Your task to perform on an android device: uninstall "Gboard" Image 0: 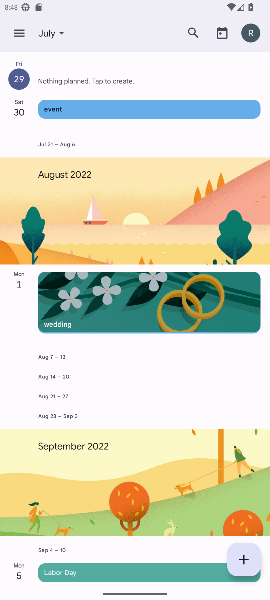
Step 0: press home button
Your task to perform on an android device: uninstall "Gboard" Image 1: 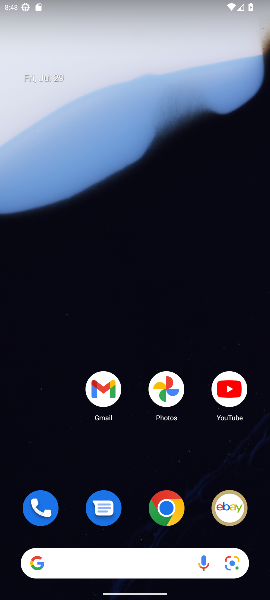
Step 1: drag from (179, 560) to (183, 13)
Your task to perform on an android device: uninstall "Gboard" Image 2: 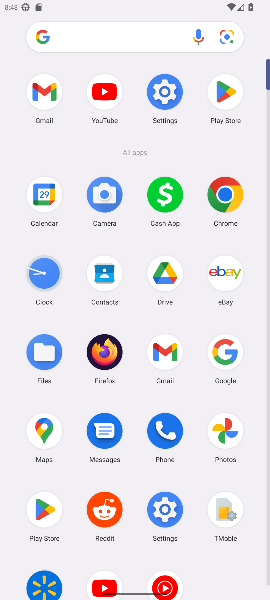
Step 2: click (235, 101)
Your task to perform on an android device: uninstall "Gboard" Image 3: 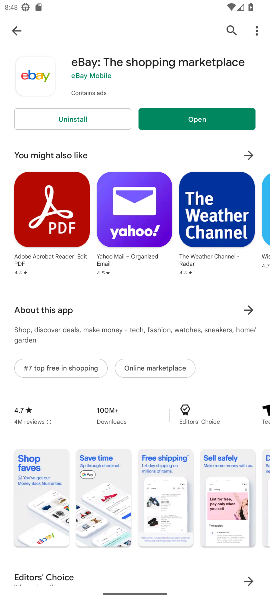
Step 3: click (230, 29)
Your task to perform on an android device: uninstall "Gboard" Image 4: 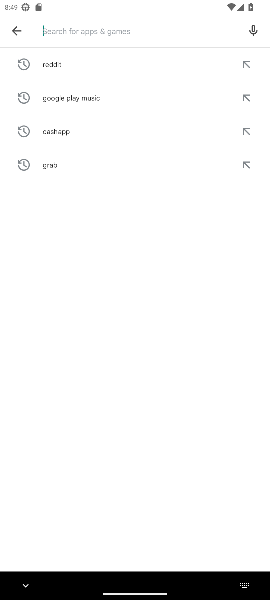
Step 4: type "gboard"
Your task to perform on an android device: uninstall "Gboard" Image 5: 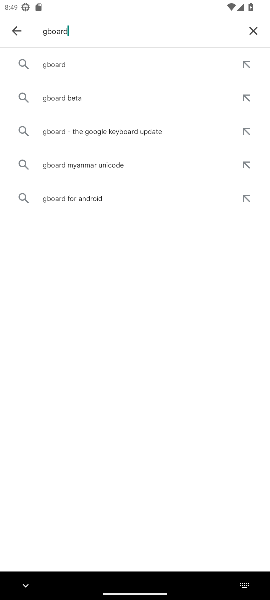
Step 5: click (52, 62)
Your task to perform on an android device: uninstall "Gboard" Image 6: 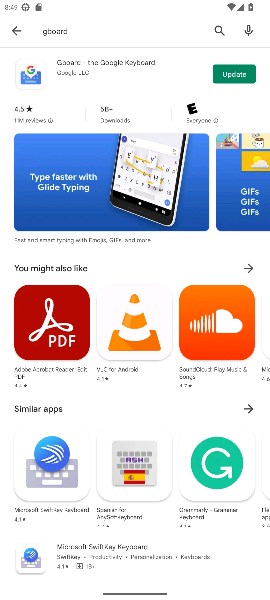
Step 6: task complete